Your task to perform on an android device: turn off picture-in-picture Image 0: 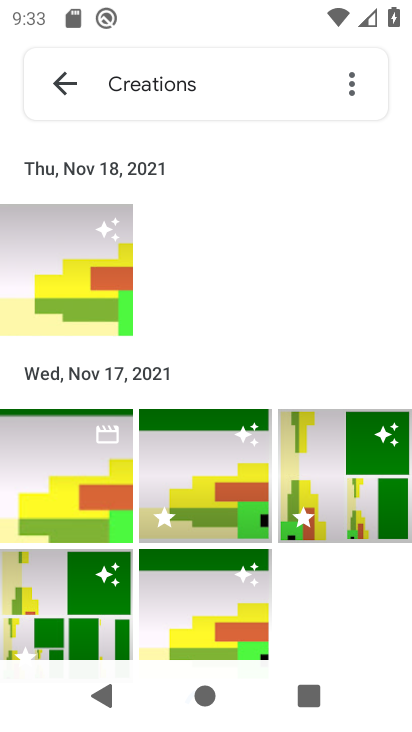
Step 0: press home button
Your task to perform on an android device: turn off picture-in-picture Image 1: 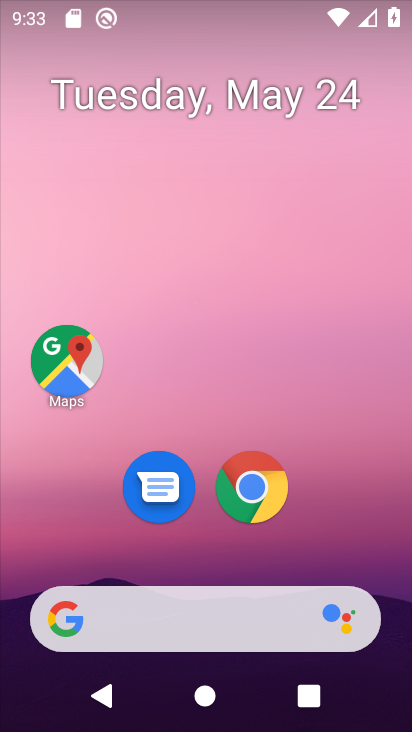
Step 1: click (257, 486)
Your task to perform on an android device: turn off picture-in-picture Image 2: 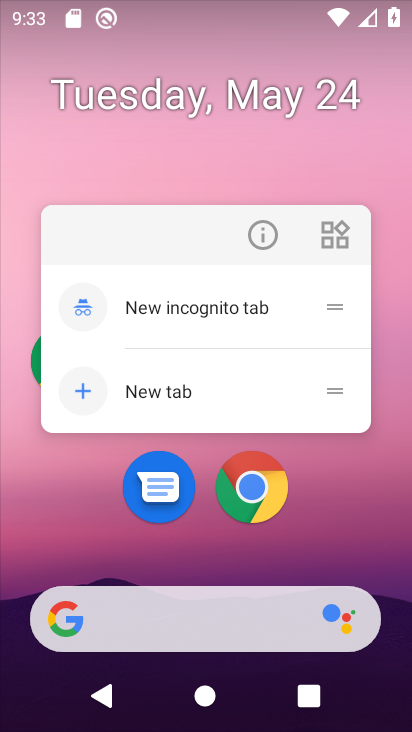
Step 2: click (254, 232)
Your task to perform on an android device: turn off picture-in-picture Image 3: 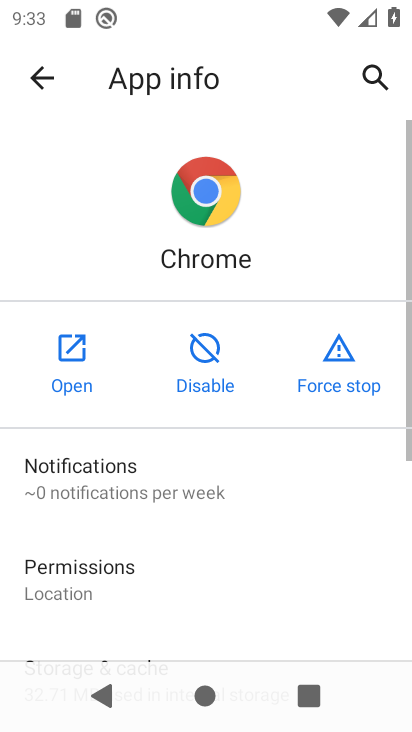
Step 3: drag from (194, 562) to (324, 42)
Your task to perform on an android device: turn off picture-in-picture Image 4: 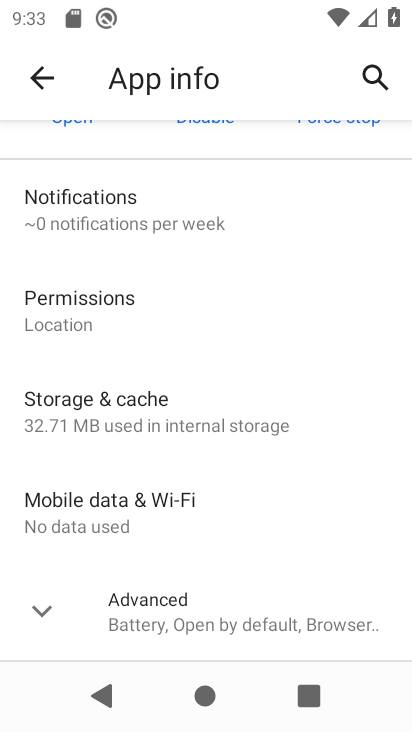
Step 4: click (165, 607)
Your task to perform on an android device: turn off picture-in-picture Image 5: 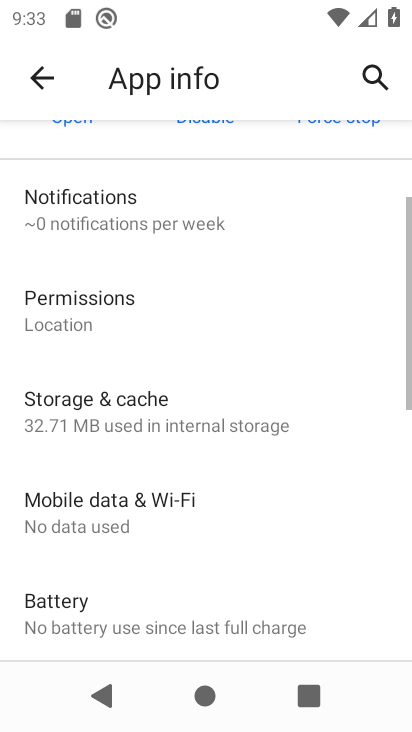
Step 5: drag from (203, 586) to (298, 151)
Your task to perform on an android device: turn off picture-in-picture Image 6: 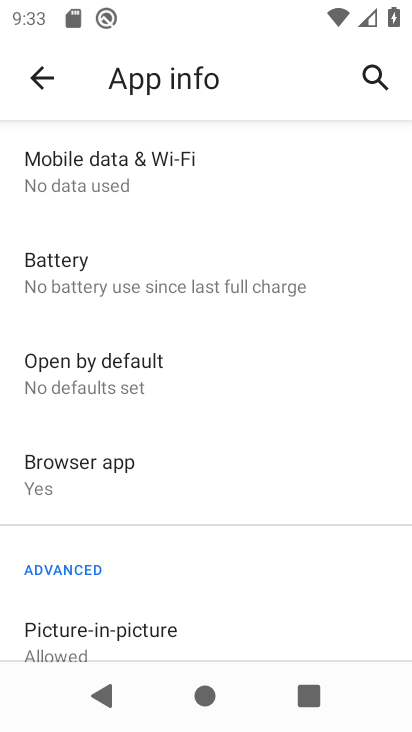
Step 6: drag from (199, 592) to (321, 277)
Your task to perform on an android device: turn off picture-in-picture Image 7: 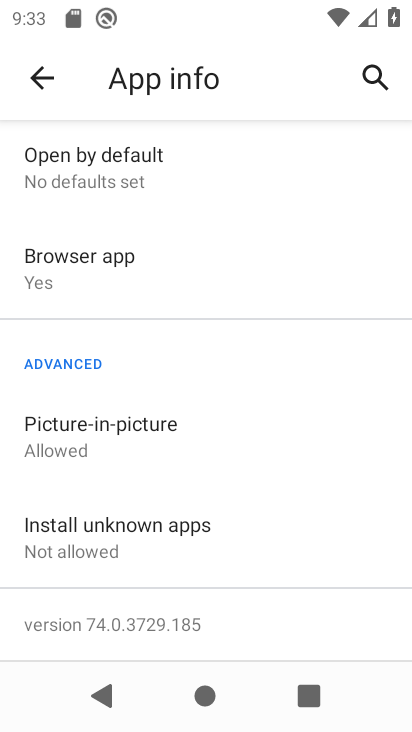
Step 7: click (132, 442)
Your task to perform on an android device: turn off picture-in-picture Image 8: 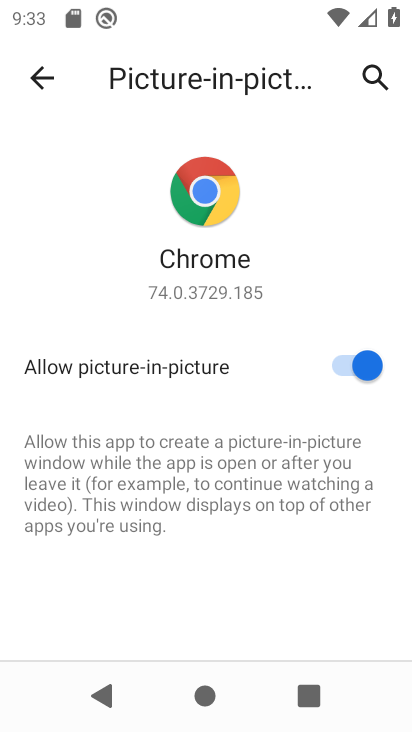
Step 8: click (346, 371)
Your task to perform on an android device: turn off picture-in-picture Image 9: 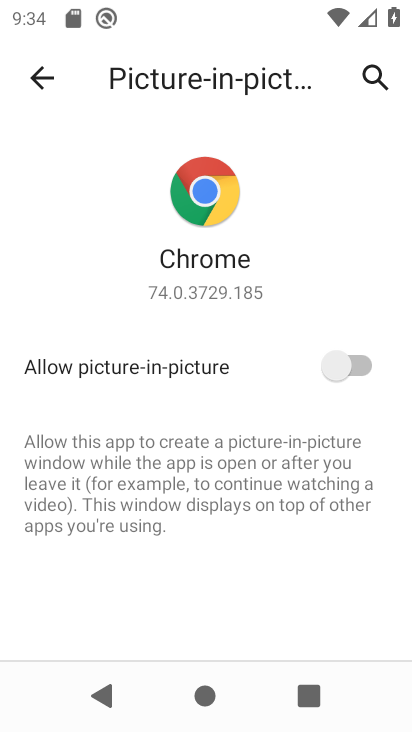
Step 9: task complete